Your task to perform on an android device: change the clock display to digital Image 0: 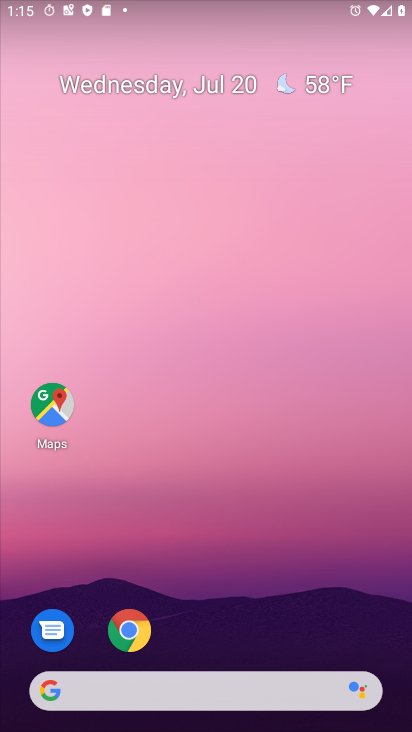
Step 0: drag from (149, 684) to (244, 310)
Your task to perform on an android device: change the clock display to digital Image 1: 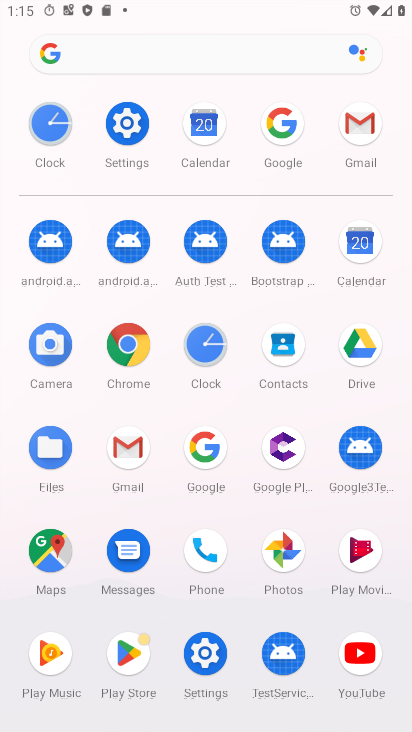
Step 1: click (50, 139)
Your task to perform on an android device: change the clock display to digital Image 2: 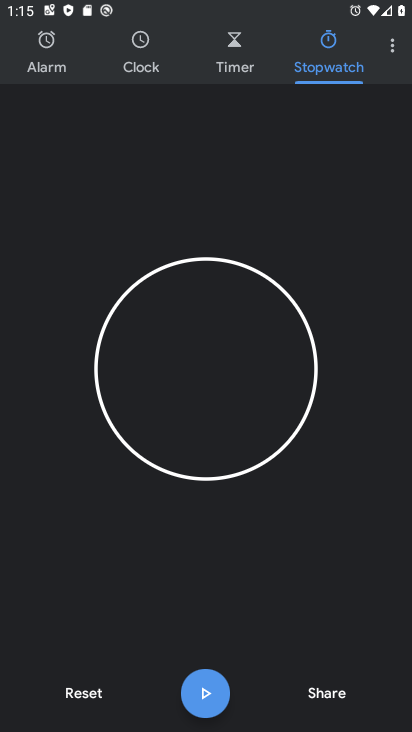
Step 2: click (388, 50)
Your task to perform on an android device: change the clock display to digital Image 3: 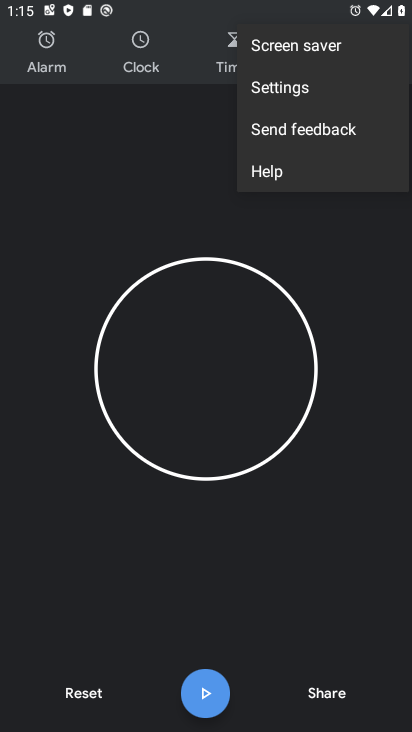
Step 3: click (284, 79)
Your task to perform on an android device: change the clock display to digital Image 4: 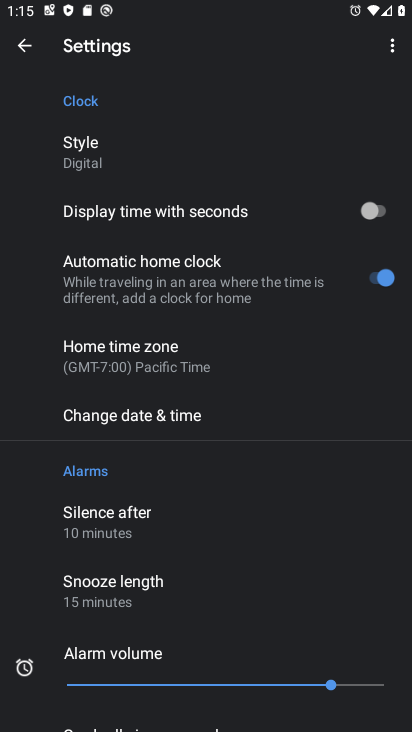
Step 4: task complete